Your task to perform on an android device: Go to Amazon Image 0: 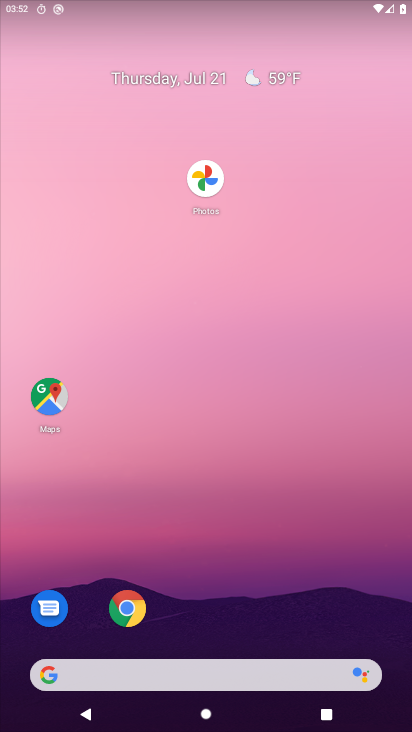
Step 0: press home button
Your task to perform on an android device: Go to Amazon Image 1: 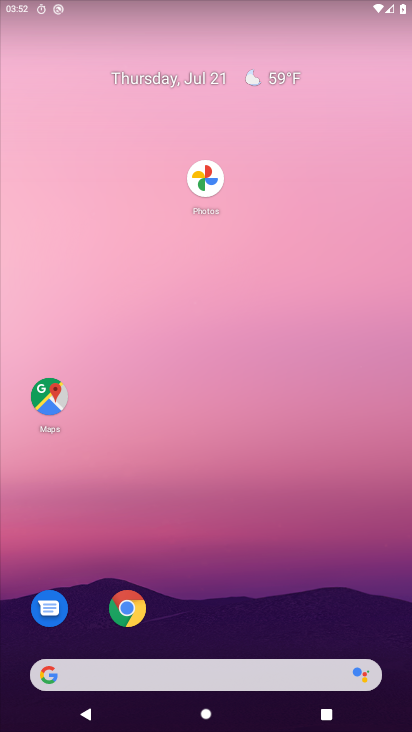
Step 1: click (240, 247)
Your task to perform on an android device: Go to Amazon Image 2: 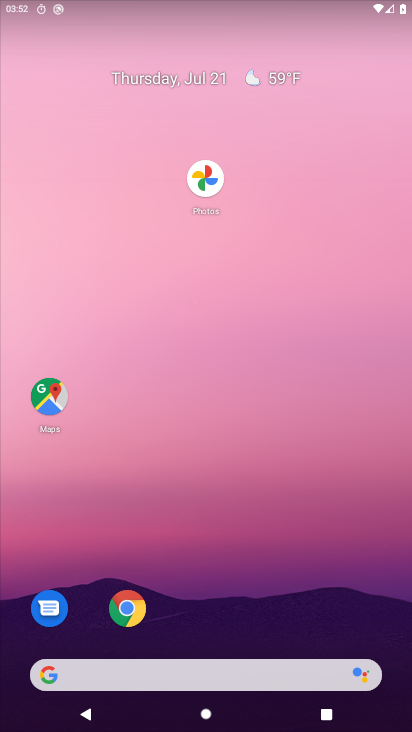
Step 2: click (124, 609)
Your task to perform on an android device: Go to Amazon Image 3: 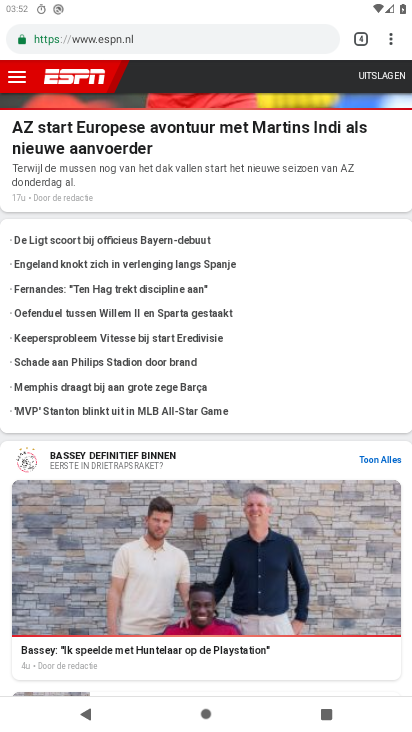
Step 3: click (358, 30)
Your task to perform on an android device: Go to Amazon Image 4: 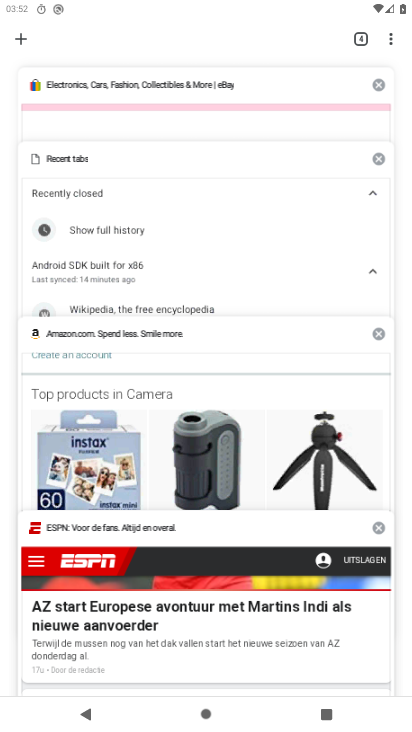
Step 4: click (384, 82)
Your task to perform on an android device: Go to Amazon Image 5: 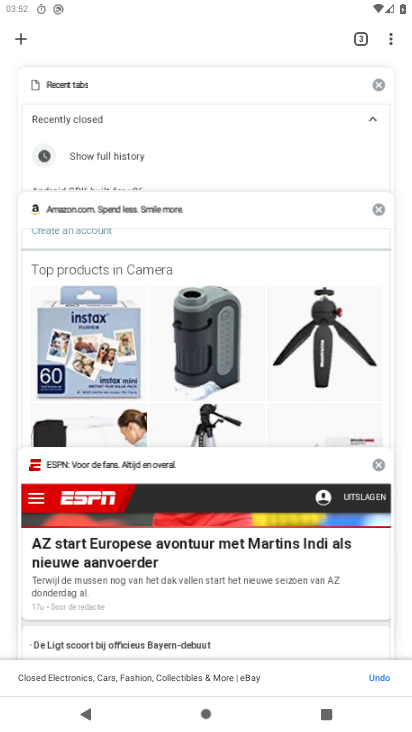
Step 5: click (379, 81)
Your task to perform on an android device: Go to Amazon Image 6: 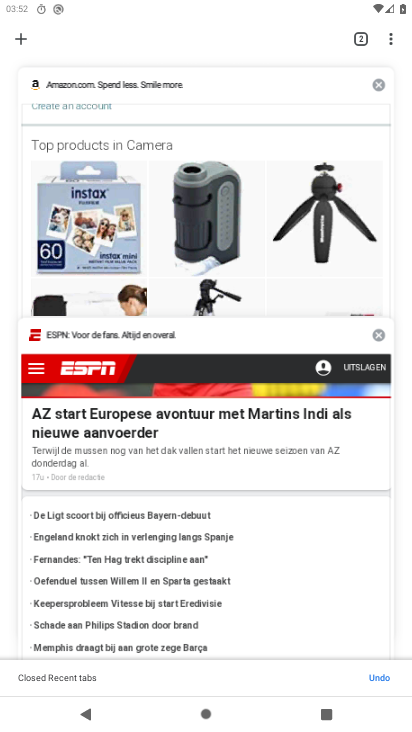
Step 6: click (221, 169)
Your task to perform on an android device: Go to Amazon Image 7: 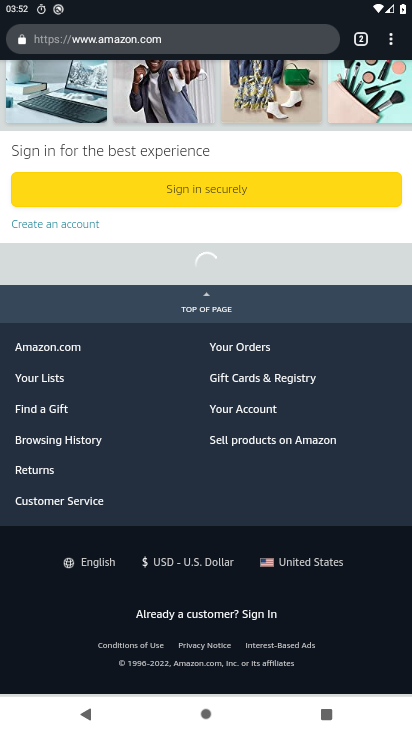
Step 7: task complete